Your task to perform on an android device: allow cookies in the chrome app Image 0: 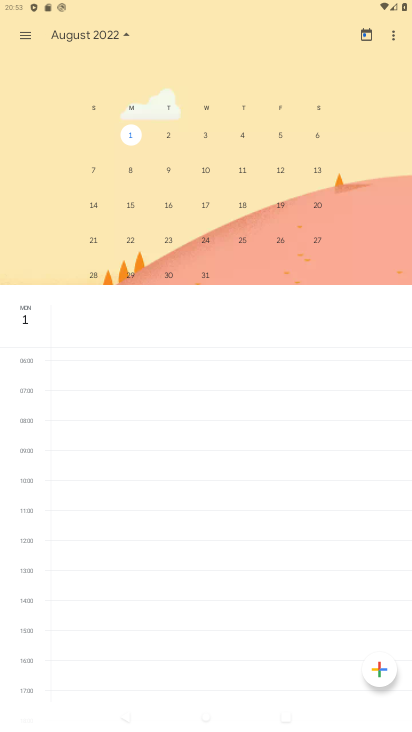
Step 0: press home button
Your task to perform on an android device: allow cookies in the chrome app Image 1: 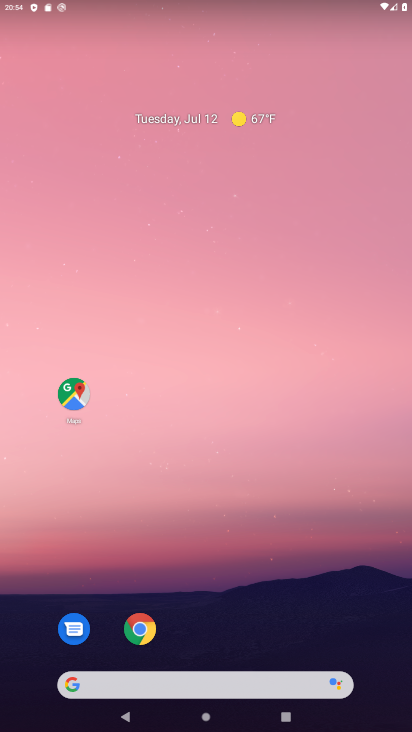
Step 1: click (141, 630)
Your task to perform on an android device: allow cookies in the chrome app Image 2: 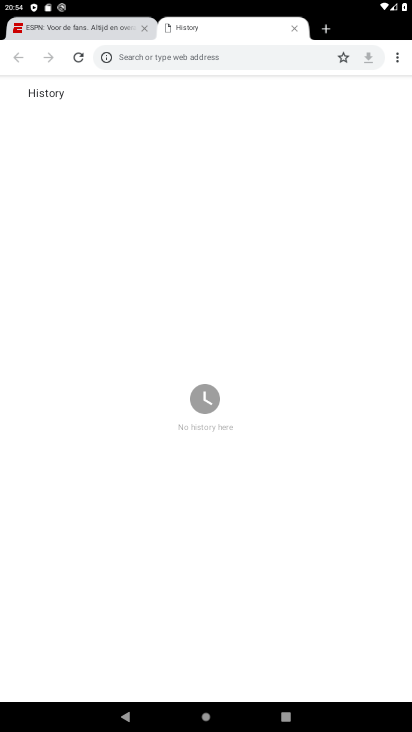
Step 2: click (395, 51)
Your task to perform on an android device: allow cookies in the chrome app Image 3: 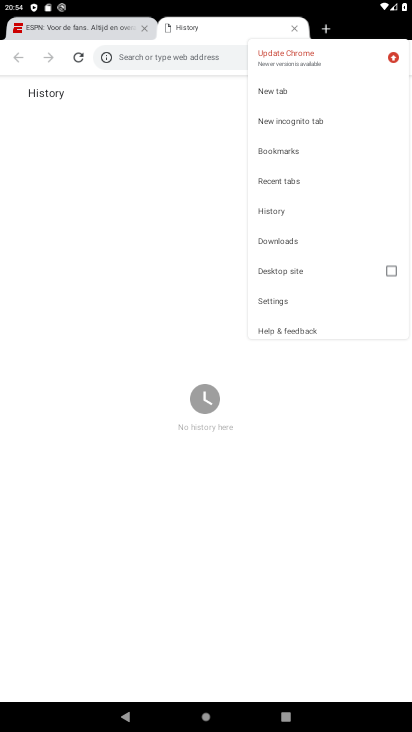
Step 3: click (282, 296)
Your task to perform on an android device: allow cookies in the chrome app Image 4: 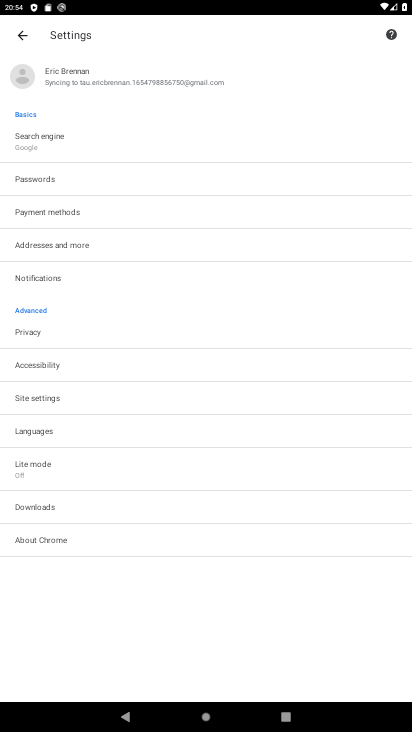
Step 4: click (55, 391)
Your task to perform on an android device: allow cookies in the chrome app Image 5: 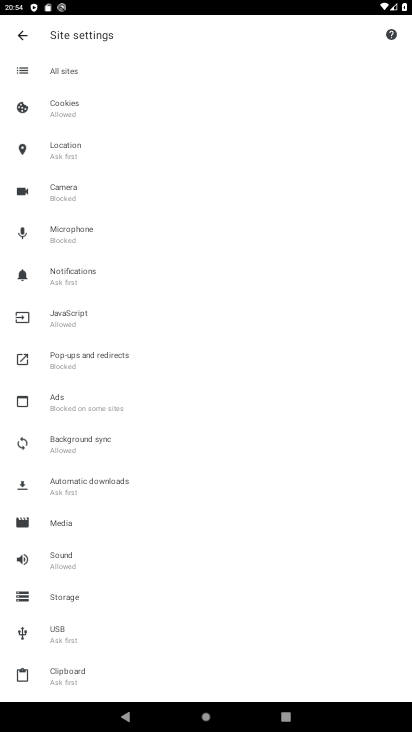
Step 5: click (59, 114)
Your task to perform on an android device: allow cookies in the chrome app Image 6: 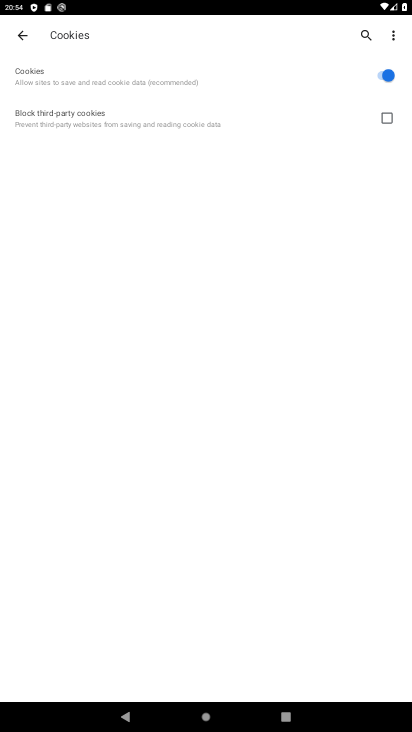
Step 6: task complete